Your task to perform on an android device: check the backup settings in the google photos Image 0: 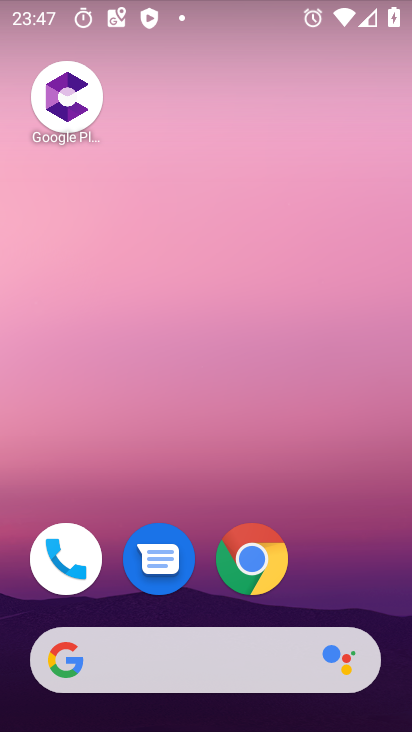
Step 0: drag from (350, 606) to (284, 62)
Your task to perform on an android device: check the backup settings in the google photos Image 1: 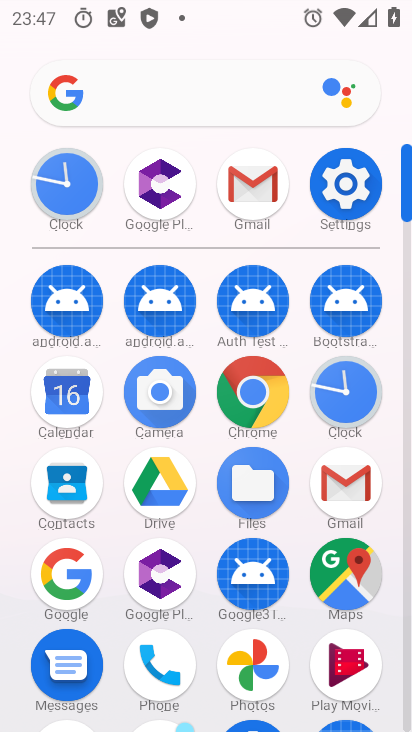
Step 1: click (248, 676)
Your task to perform on an android device: check the backup settings in the google photos Image 2: 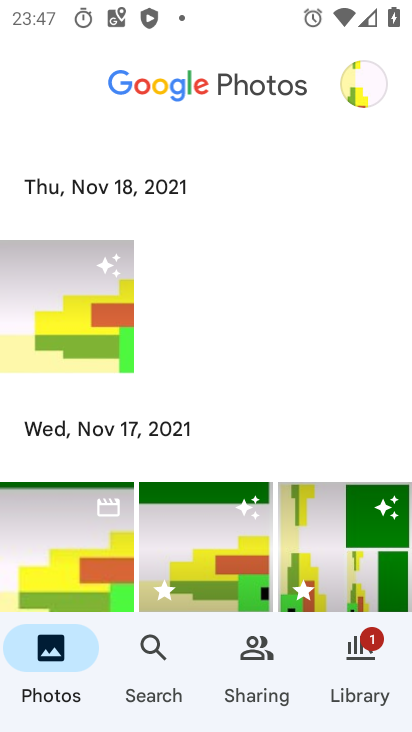
Step 2: click (362, 100)
Your task to perform on an android device: check the backup settings in the google photos Image 3: 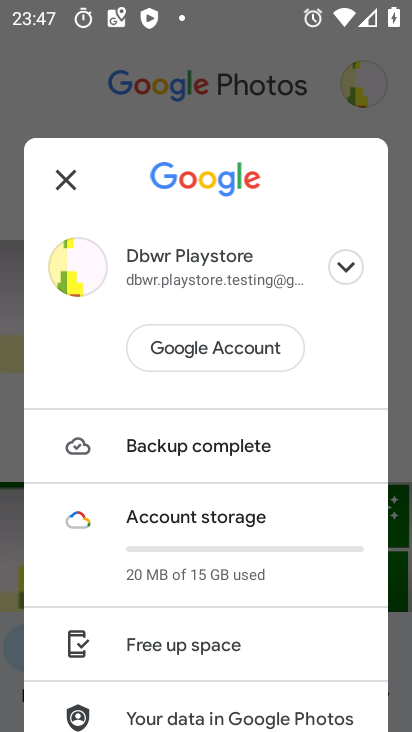
Step 3: drag from (197, 658) to (276, 243)
Your task to perform on an android device: check the backup settings in the google photos Image 4: 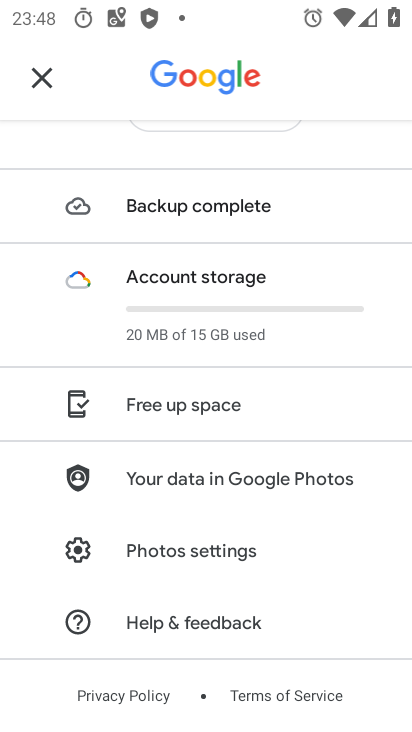
Step 4: click (209, 548)
Your task to perform on an android device: check the backup settings in the google photos Image 5: 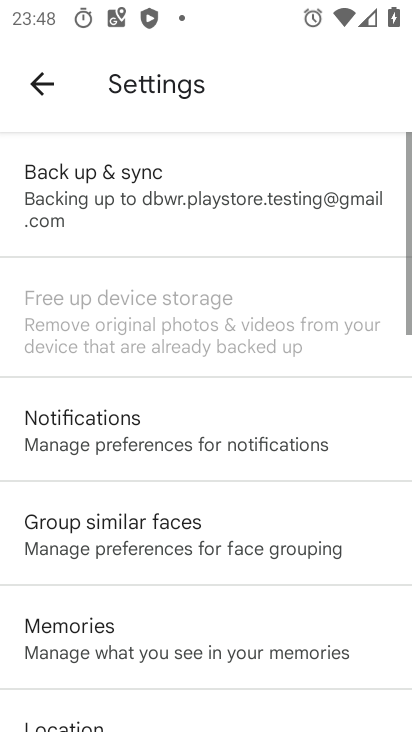
Step 5: click (201, 192)
Your task to perform on an android device: check the backup settings in the google photos Image 6: 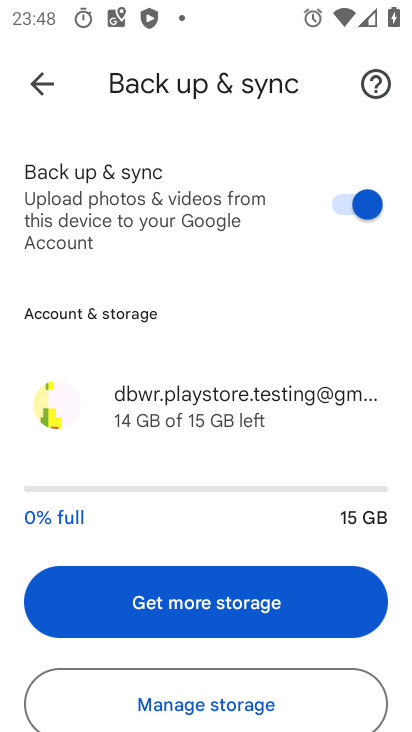
Step 6: task complete